Your task to perform on an android device: Open display settings Image 0: 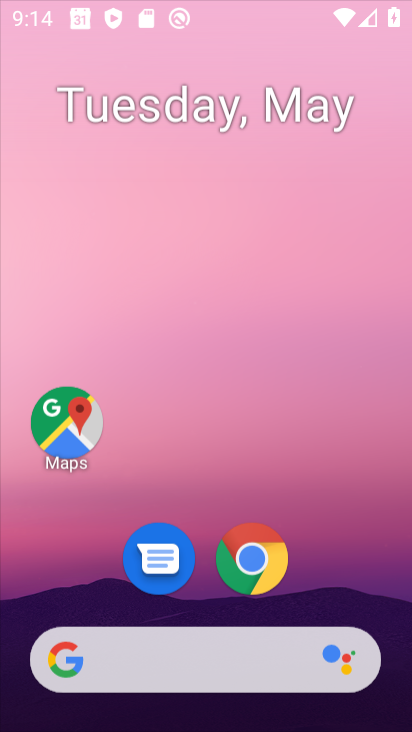
Step 0: drag from (333, 545) to (104, 20)
Your task to perform on an android device: Open display settings Image 1: 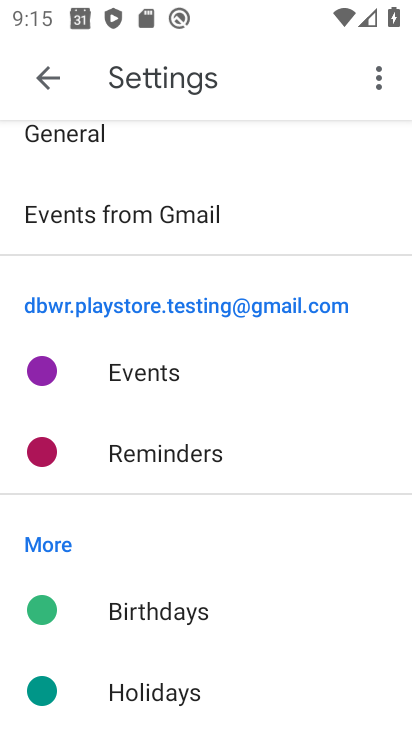
Step 1: click (43, 80)
Your task to perform on an android device: Open display settings Image 2: 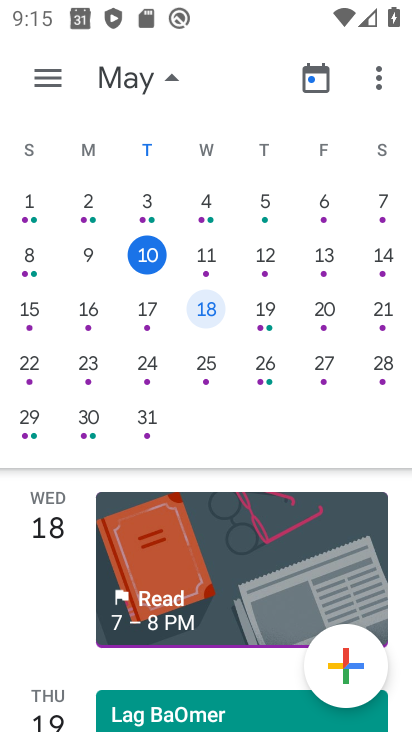
Step 2: press back button
Your task to perform on an android device: Open display settings Image 3: 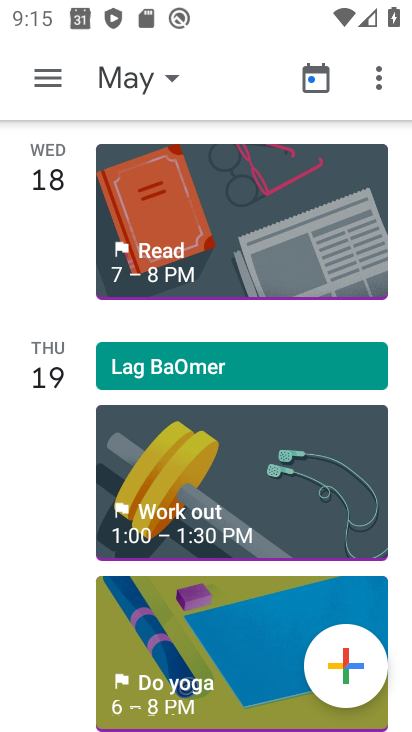
Step 3: press home button
Your task to perform on an android device: Open display settings Image 4: 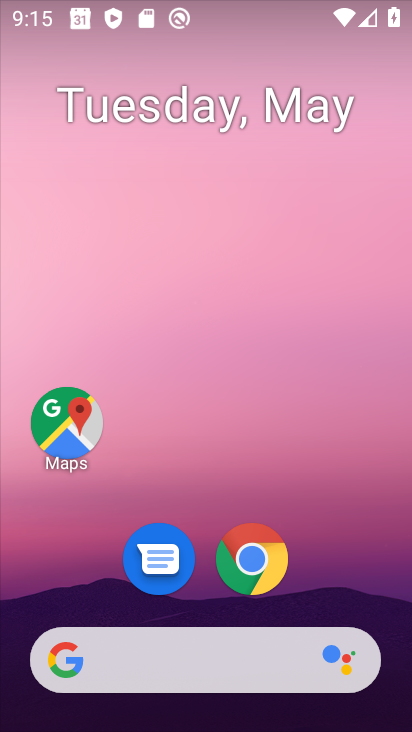
Step 4: drag from (302, 500) to (120, 2)
Your task to perform on an android device: Open display settings Image 5: 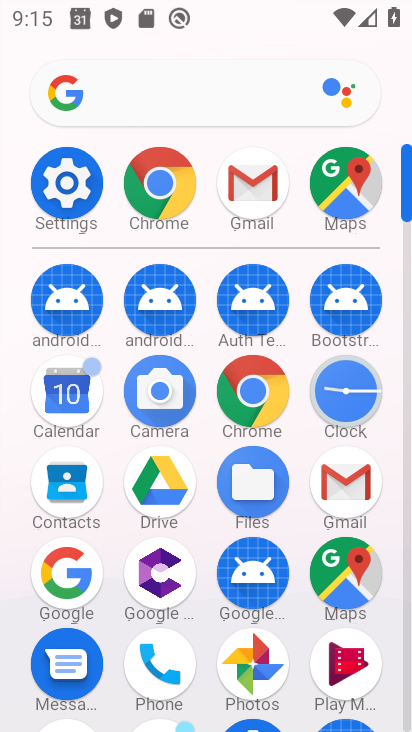
Step 5: click (57, 187)
Your task to perform on an android device: Open display settings Image 6: 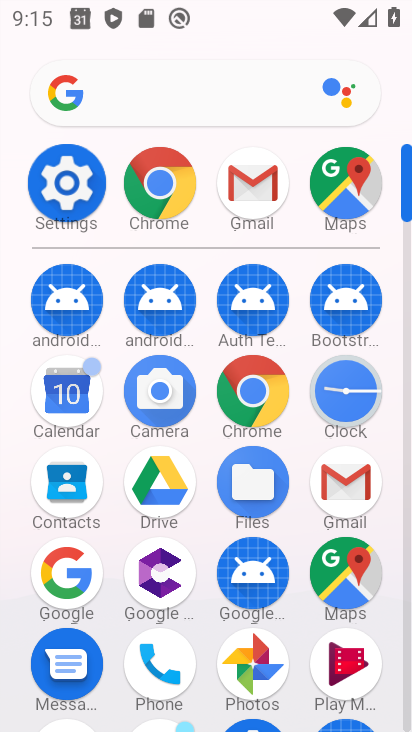
Step 6: click (57, 188)
Your task to perform on an android device: Open display settings Image 7: 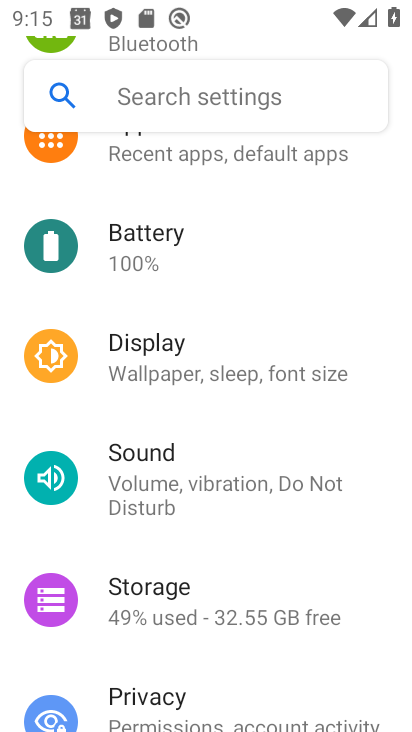
Step 7: click (177, 369)
Your task to perform on an android device: Open display settings Image 8: 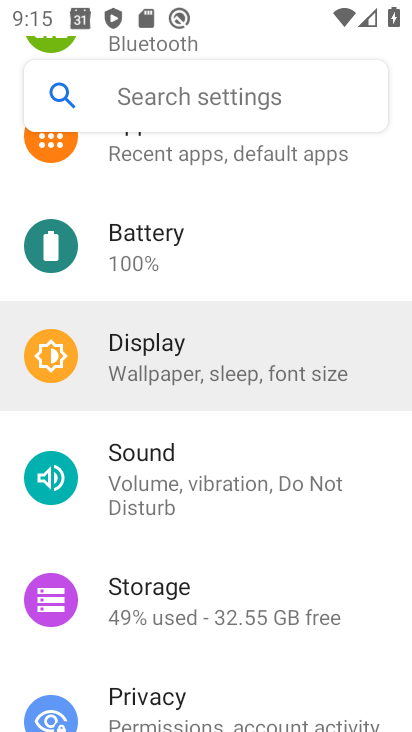
Step 8: click (176, 369)
Your task to perform on an android device: Open display settings Image 9: 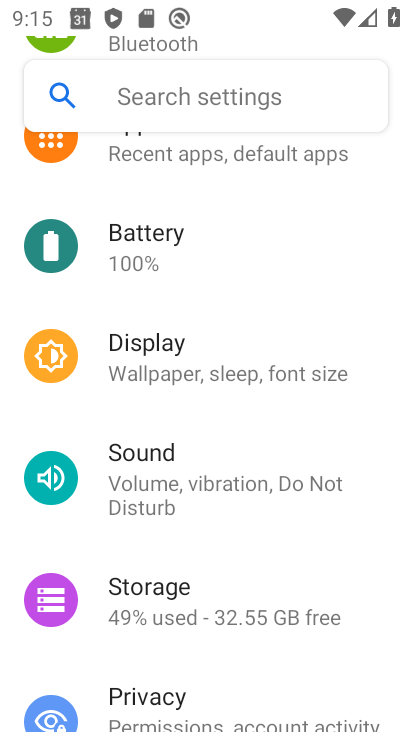
Step 9: click (176, 369)
Your task to perform on an android device: Open display settings Image 10: 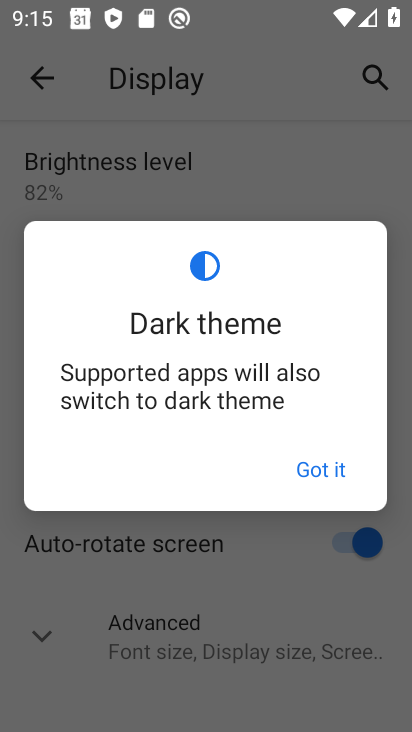
Step 10: click (323, 466)
Your task to perform on an android device: Open display settings Image 11: 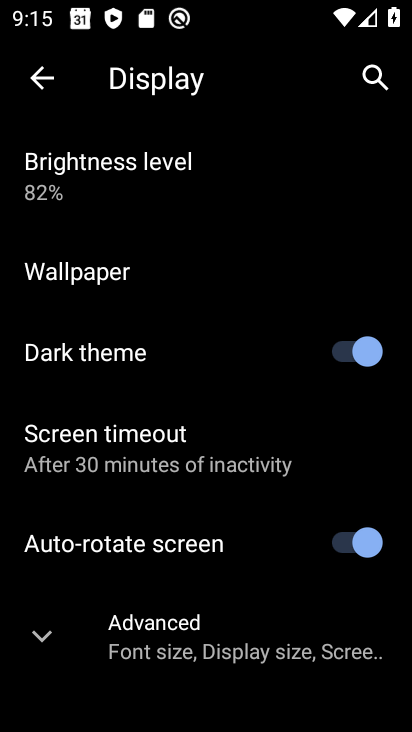
Step 11: click (365, 347)
Your task to perform on an android device: Open display settings Image 12: 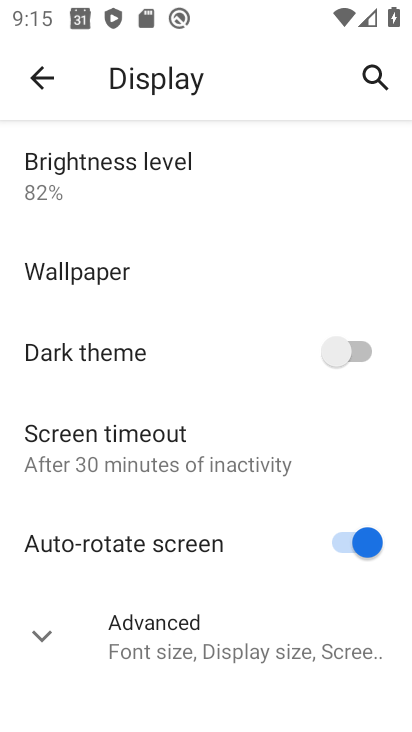
Step 12: drag from (226, 578) to (183, 263)
Your task to perform on an android device: Open display settings Image 13: 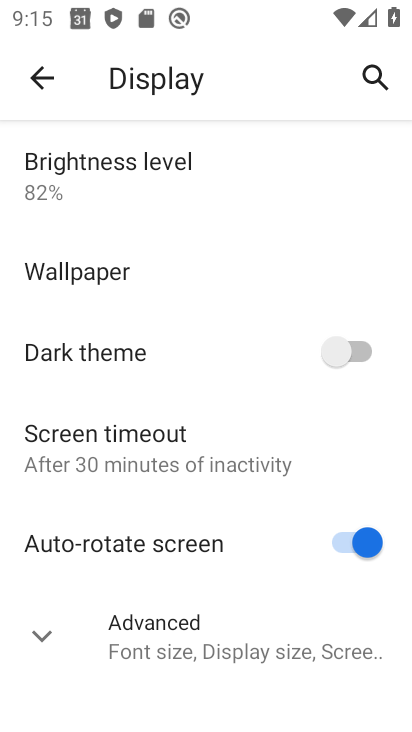
Step 13: click (188, 653)
Your task to perform on an android device: Open display settings Image 14: 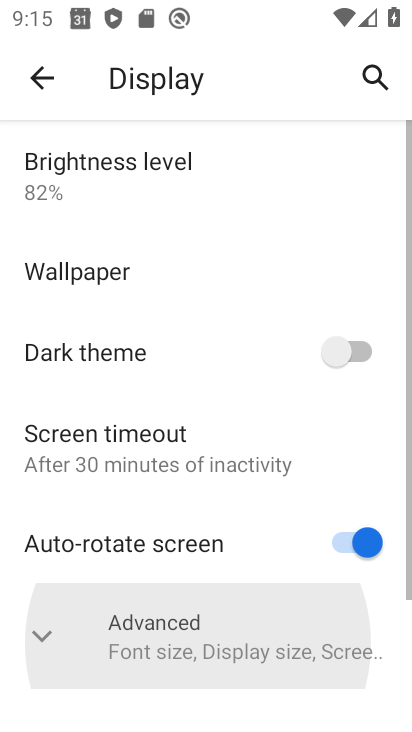
Step 14: click (188, 653)
Your task to perform on an android device: Open display settings Image 15: 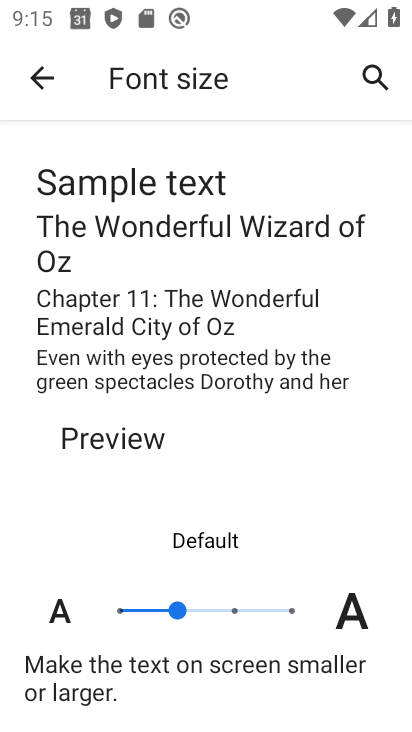
Step 15: click (35, 79)
Your task to perform on an android device: Open display settings Image 16: 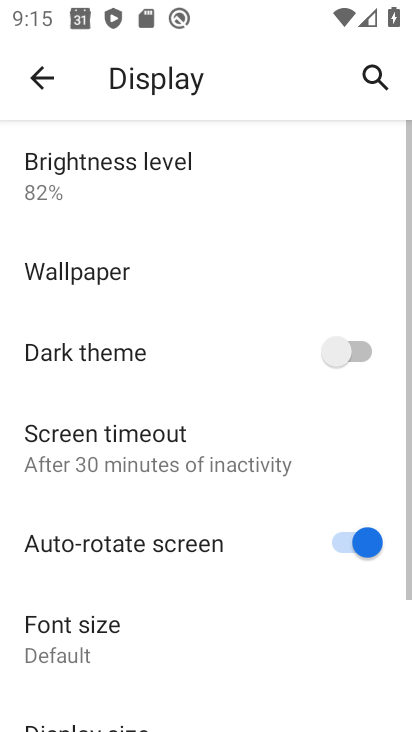
Step 16: task complete